Your task to perform on an android device: toggle pop-ups in chrome Image 0: 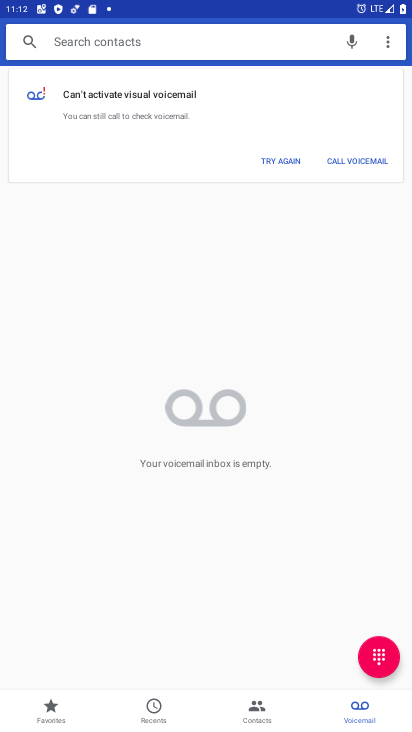
Step 0: press home button
Your task to perform on an android device: toggle pop-ups in chrome Image 1: 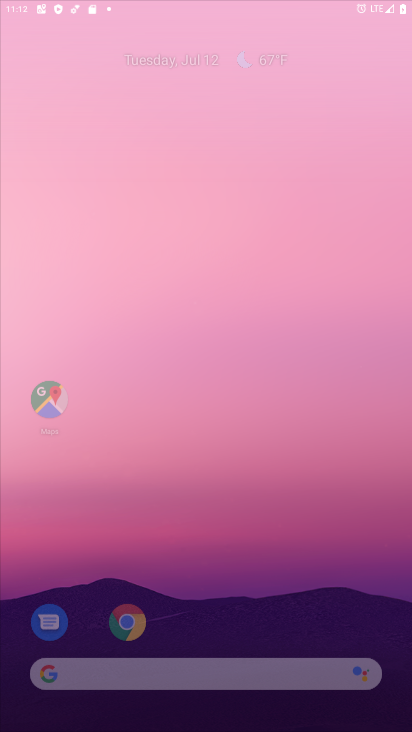
Step 1: drag from (149, 588) to (240, 154)
Your task to perform on an android device: toggle pop-ups in chrome Image 2: 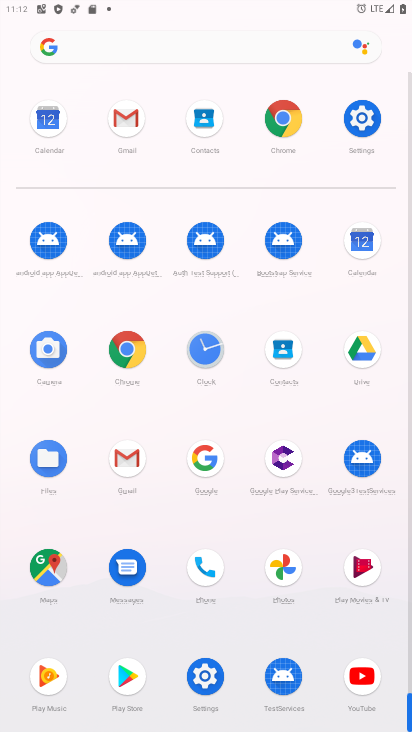
Step 2: click (279, 123)
Your task to perform on an android device: toggle pop-ups in chrome Image 3: 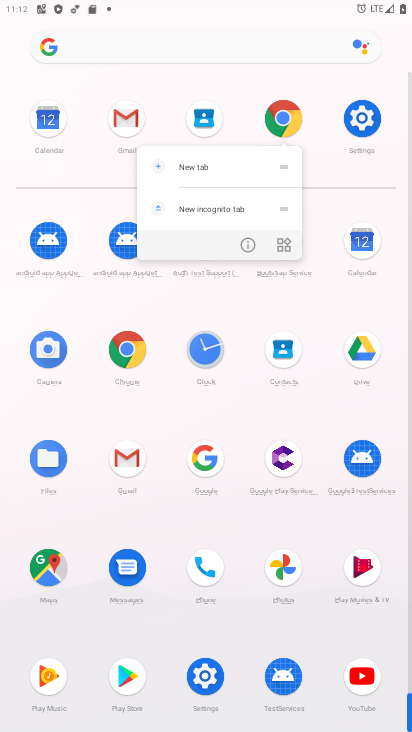
Step 3: click (242, 245)
Your task to perform on an android device: toggle pop-ups in chrome Image 4: 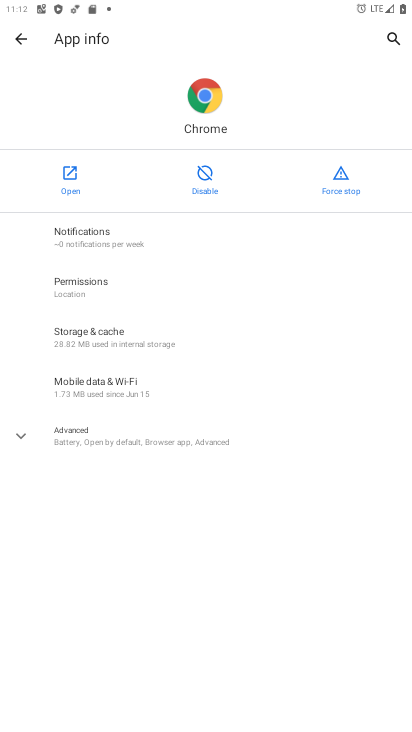
Step 4: click (39, 185)
Your task to perform on an android device: toggle pop-ups in chrome Image 5: 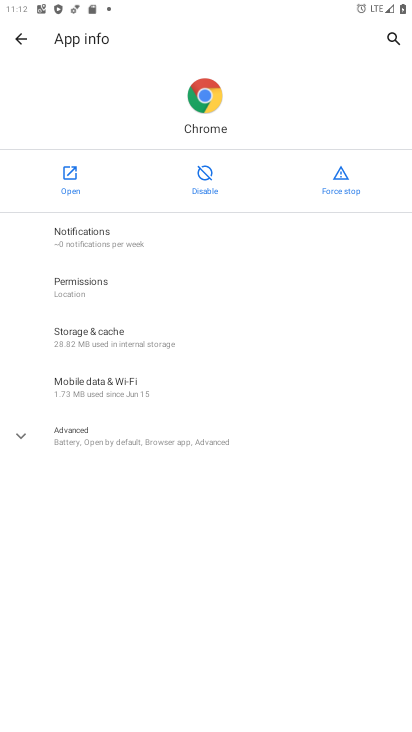
Step 5: click (63, 180)
Your task to perform on an android device: toggle pop-ups in chrome Image 6: 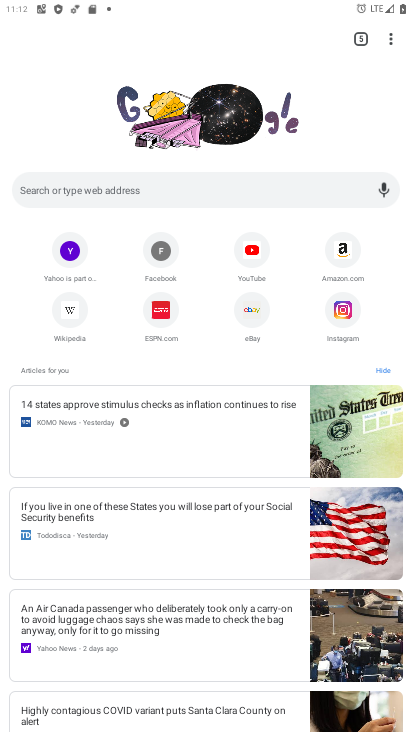
Step 6: click (390, 45)
Your task to perform on an android device: toggle pop-ups in chrome Image 7: 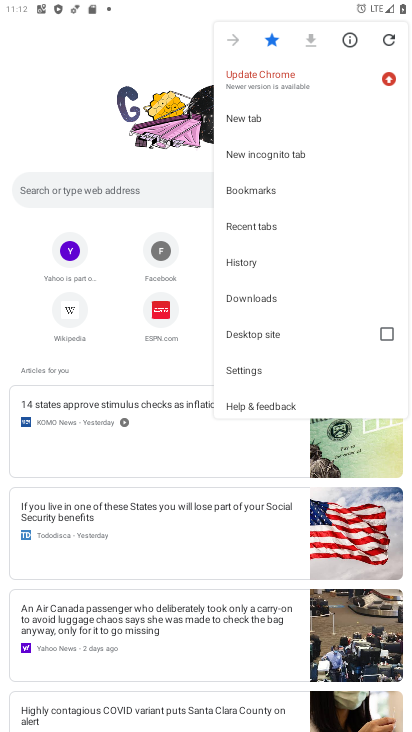
Step 7: click (248, 369)
Your task to perform on an android device: toggle pop-ups in chrome Image 8: 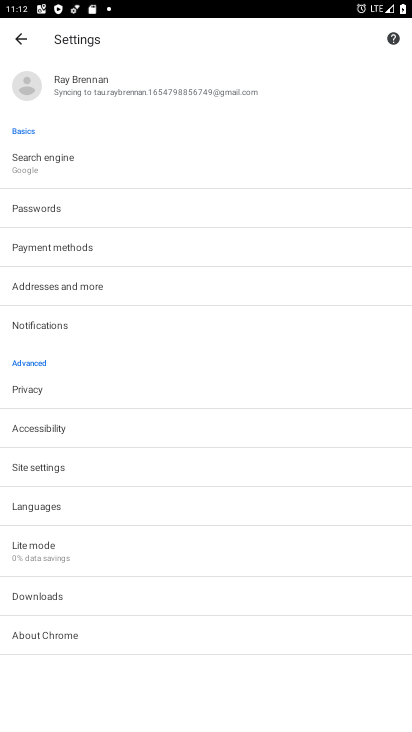
Step 8: click (72, 473)
Your task to perform on an android device: toggle pop-ups in chrome Image 9: 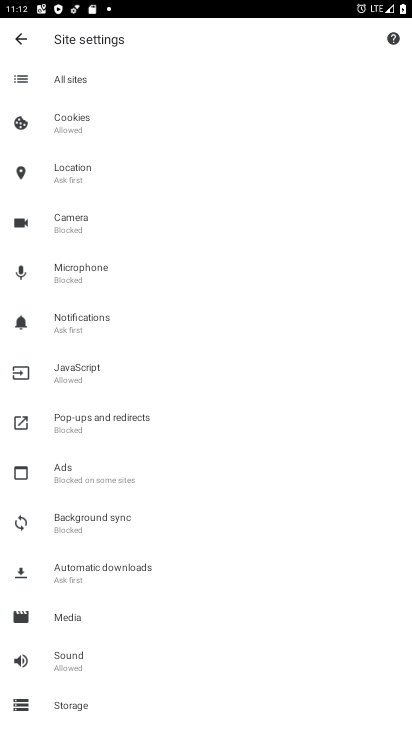
Step 9: click (83, 406)
Your task to perform on an android device: toggle pop-ups in chrome Image 10: 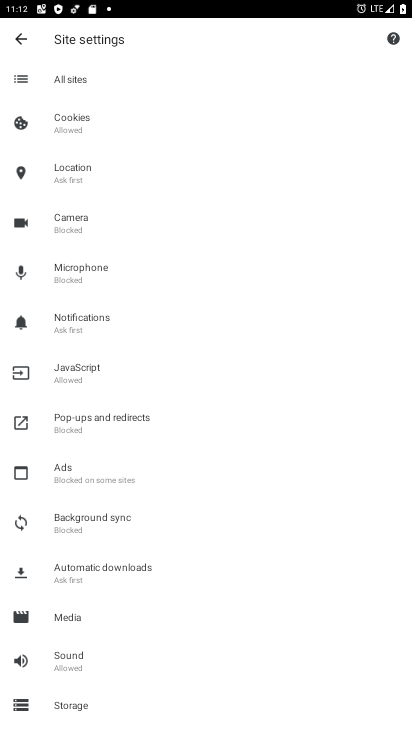
Step 10: click (82, 405)
Your task to perform on an android device: toggle pop-ups in chrome Image 11: 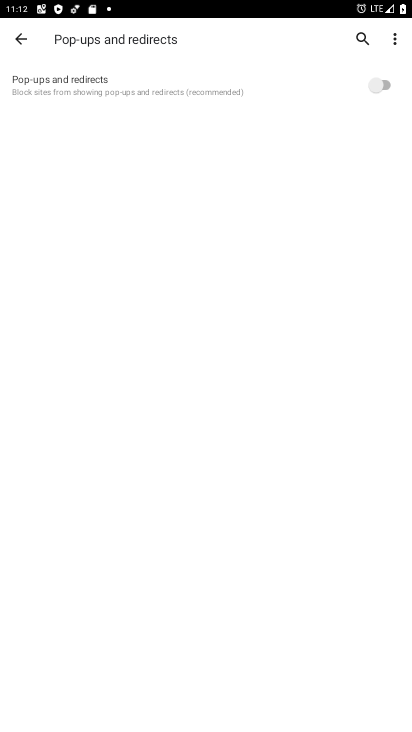
Step 11: click (272, 84)
Your task to perform on an android device: toggle pop-ups in chrome Image 12: 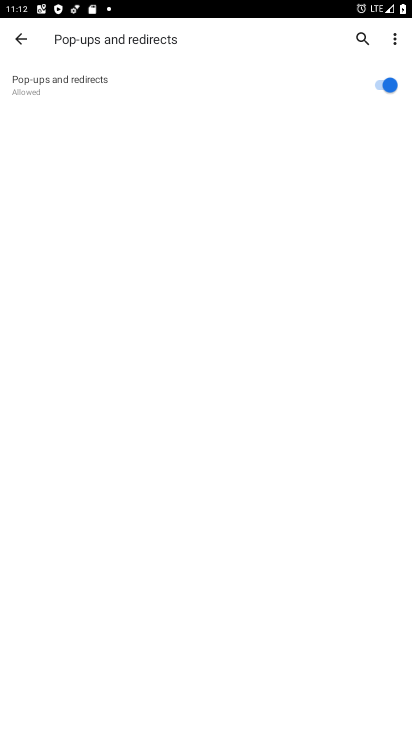
Step 12: task complete